Your task to perform on an android device: delete a single message in the gmail app Image 0: 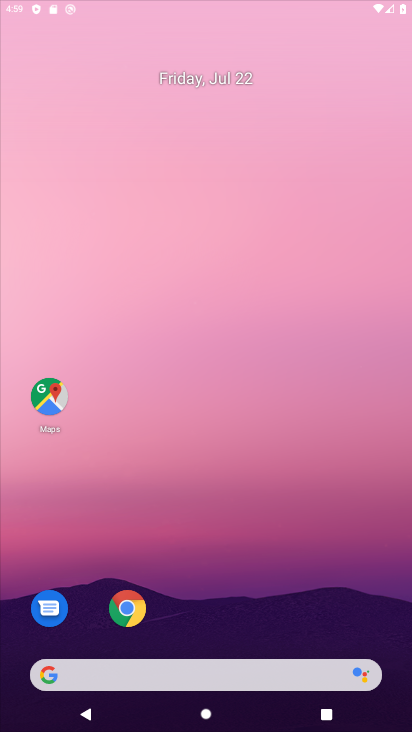
Step 0: drag from (198, 625) to (206, 223)
Your task to perform on an android device: delete a single message in the gmail app Image 1: 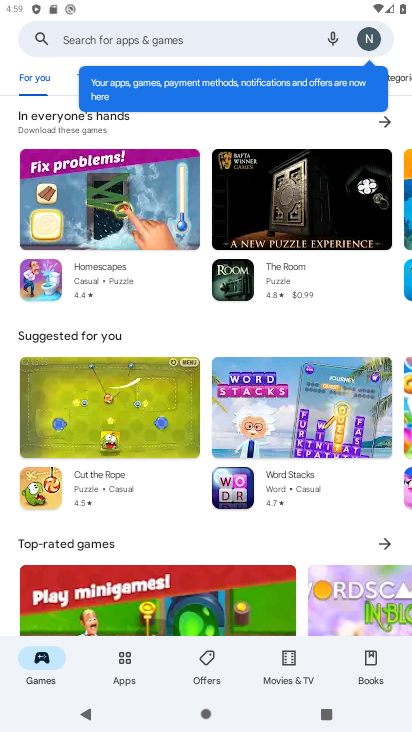
Step 1: press home button
Your task to perform on an android device: delete a single message in the gmail app Image 2: 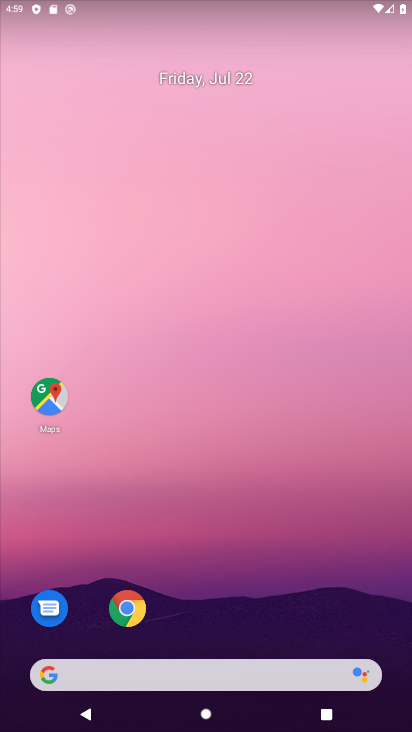
Step 2: drag from (191, 620) to (176, 234)
Your task to perform on an android device: delete a single message in the gmail app Image 3: 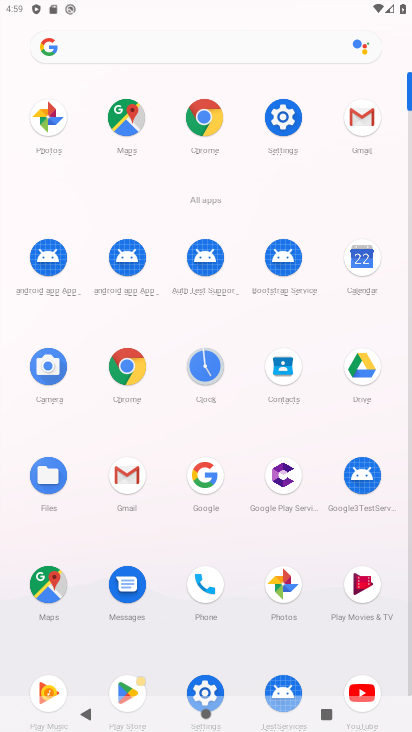
Step 3: click (352, 130)
Your task to perform on an android device: delete a single message in the gmail app Image 4: 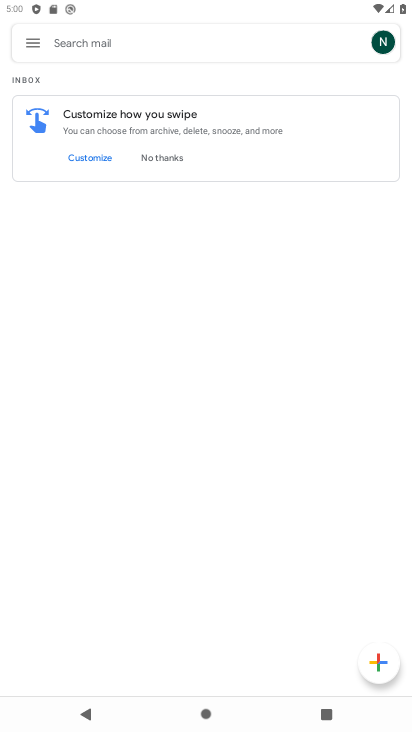
Step 4: click (39, 46)
Your task to perform on an android device: delete a single message in the gmail app Image 5: 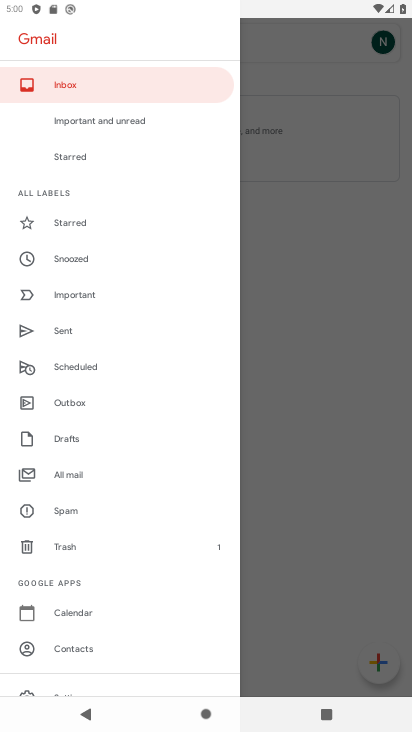
Step 5: click (95, 481)
Your task to perform on an android device: delete a single message in the gmail app Image 6: 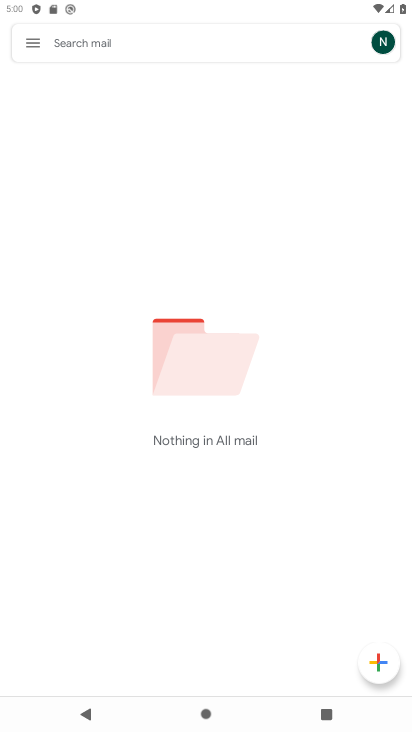
Step 6: task complete